Your task to perform on an android device: change the clock display to show seconds Image 0: 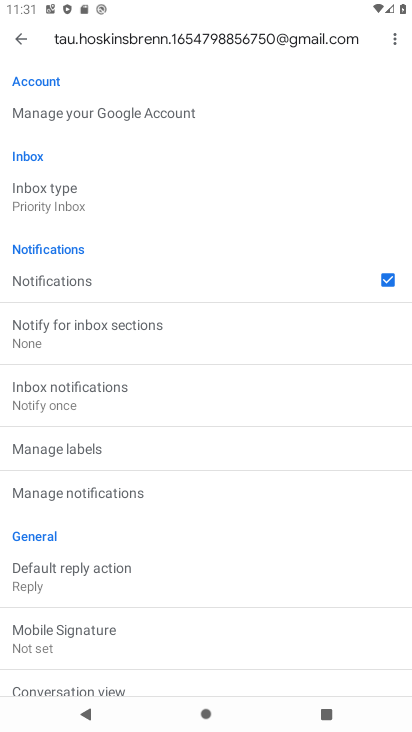
Step 0: press home button
Your task to perform on an android device: change the clock display to show seconds Image 1: 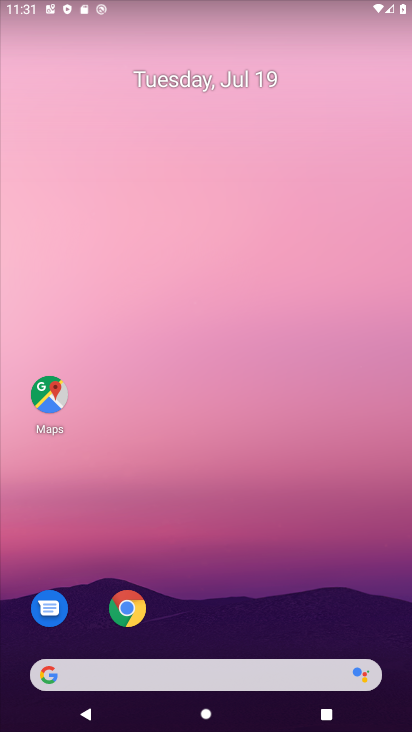
Step 1: drag from (202, 619) to (261, 50)
Your task to perform on an android device: change the clock display to show seconds Image 2: 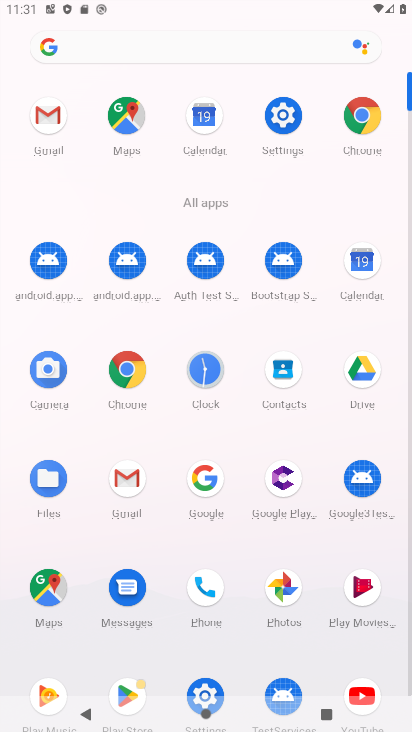
Step 2: click (202, 369)
Your task to perform on an android device: change the clock display to show seconds Image 3: 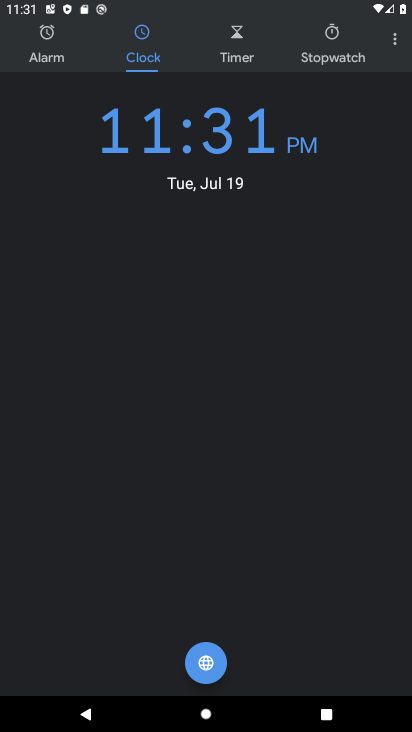
Step 3: click (390, 41)
Your task to perform on an android device: change the clock display to show seconds Image 4: 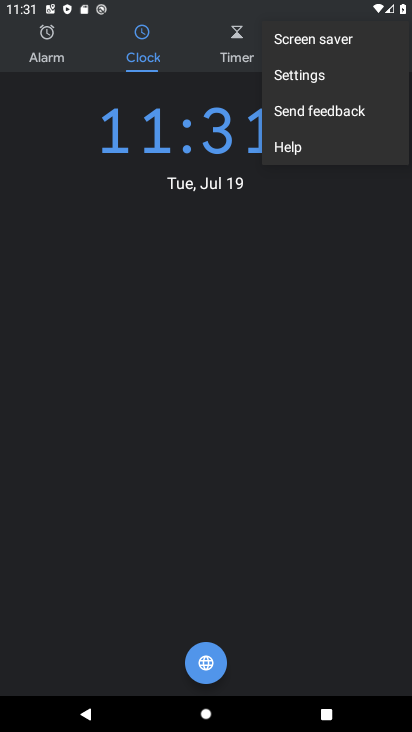
Step 4: click (309, 78)
Your task to perform on an android device: change the clock display to show seconds Image 5: 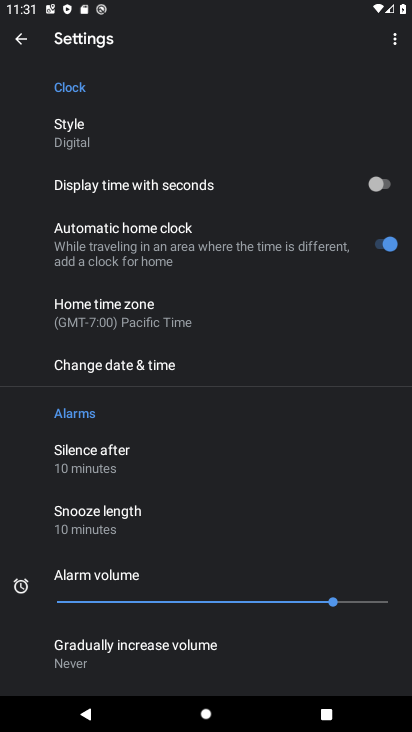
Step 5: click (376, 190)
Your task to perform on an android device: change the clock display to show seconds Image 6: 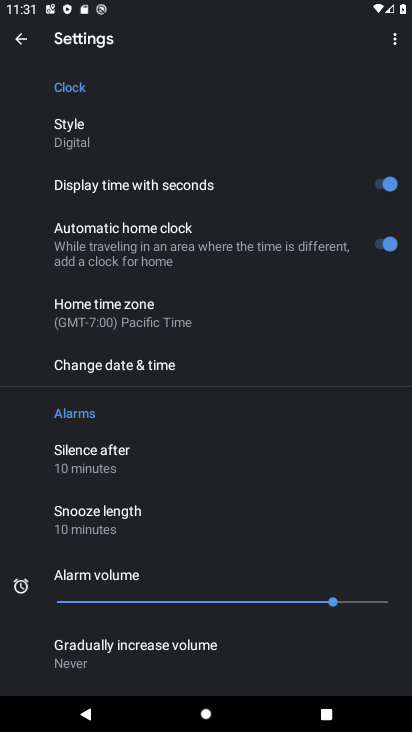
Step 6: task complete